Your task to perform on an android device: Set the phone to "Do not disturb". Image 0: 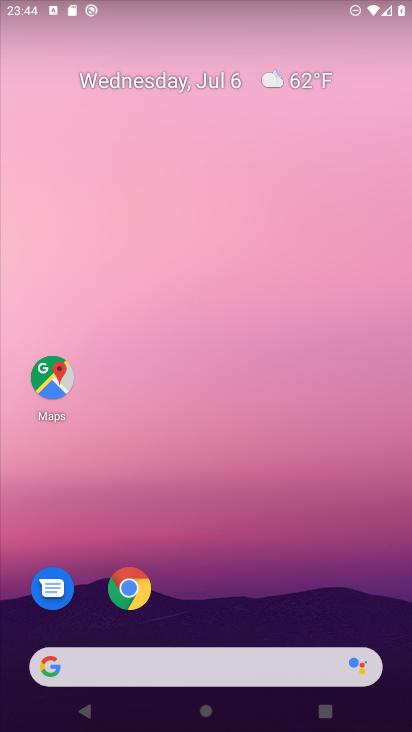
Step 0: drag from (389, 614) to (342, 104)
Your task to perform on an android device: Set the phone to "Do not disturb". Image 1: 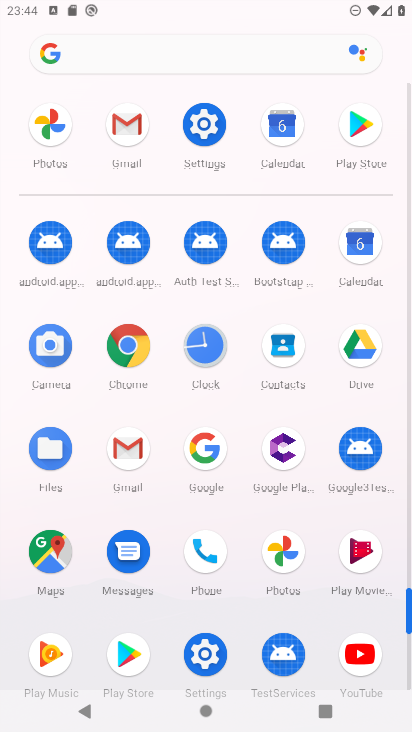
Step 1: click (202, 654)
Your task to perform on an android device: Set the phone to "Do not disturb". Image 2: 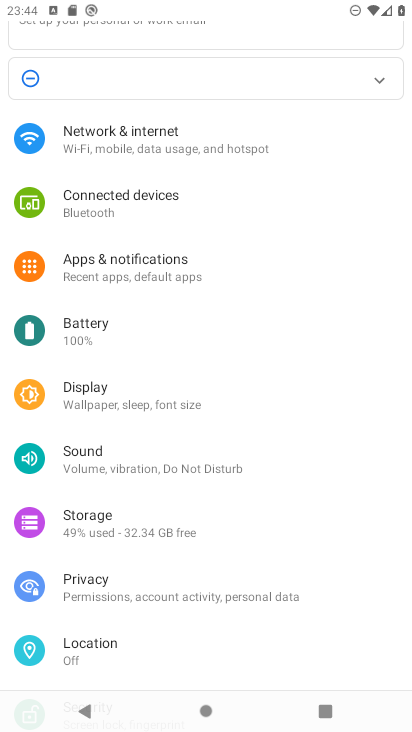
Step 2: click (132, 461)
Your task to perform on an android device: Set the phone to "Do not disturb". Image 3: 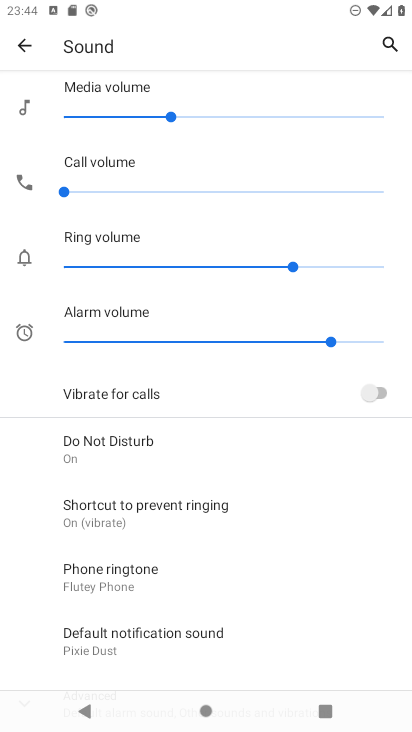
Step 3: click (93, 434)
Your task to perform on an android device: Set the phone to "Do not disturb". Image 4: 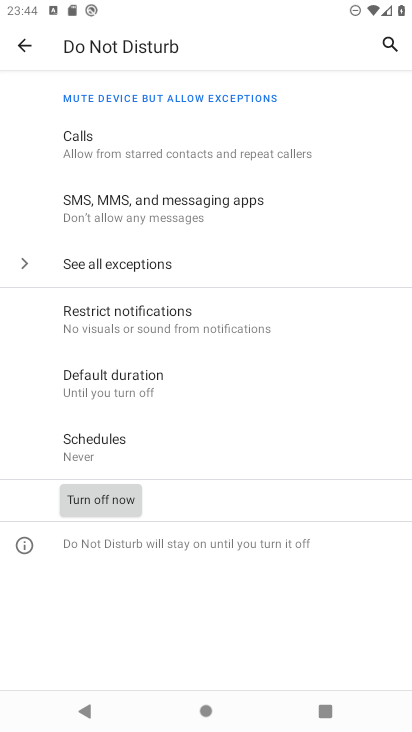
Step 4: task complete